Your task to perform on an android device: delete browsing data in the chrome app Image 0: 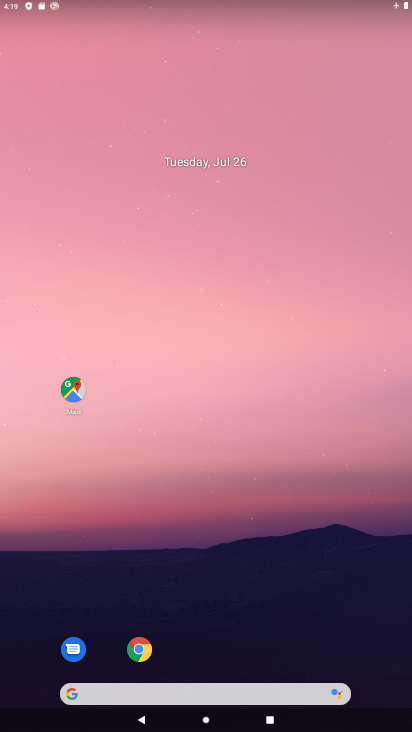
Step 0: click (153, 649)
Your task to perform on an android device: delete browsing data in the chrome app Image 1: 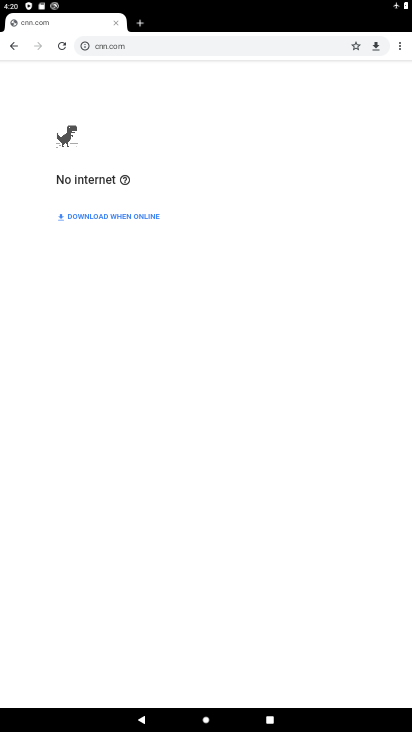
Step 1: click (403, 52)
Your task to perform on an android device: delete browsing data in the chrome app Image 2: 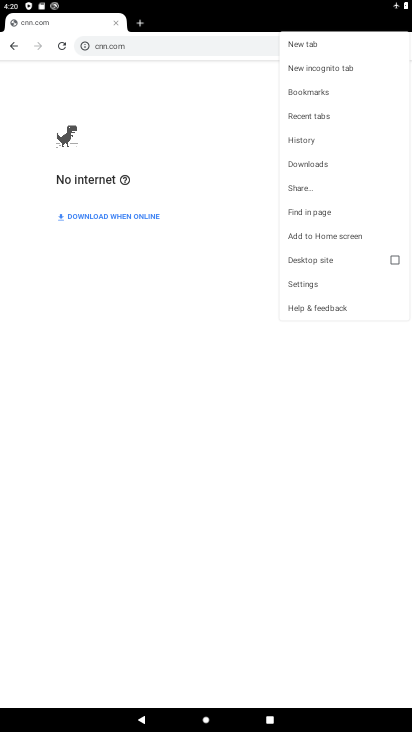
Step 2: click (326, 140)
Your task to perform on an android device: delete browsing data in the chrome app Image 3: 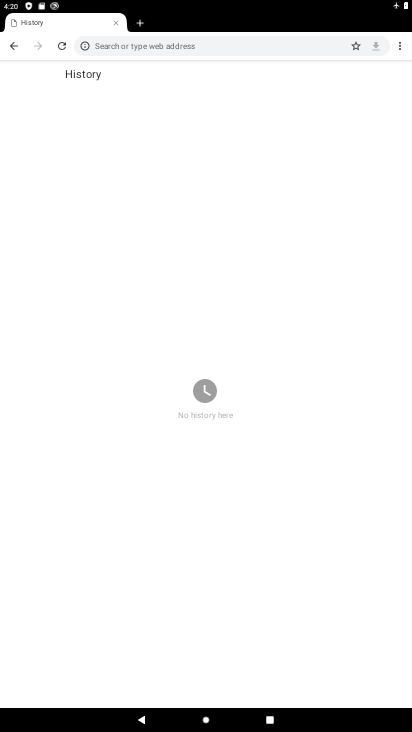
Step 3: task complete